Your task to perform on an android device: Add macbook pro 15 inch to the cart on costco Image 0: 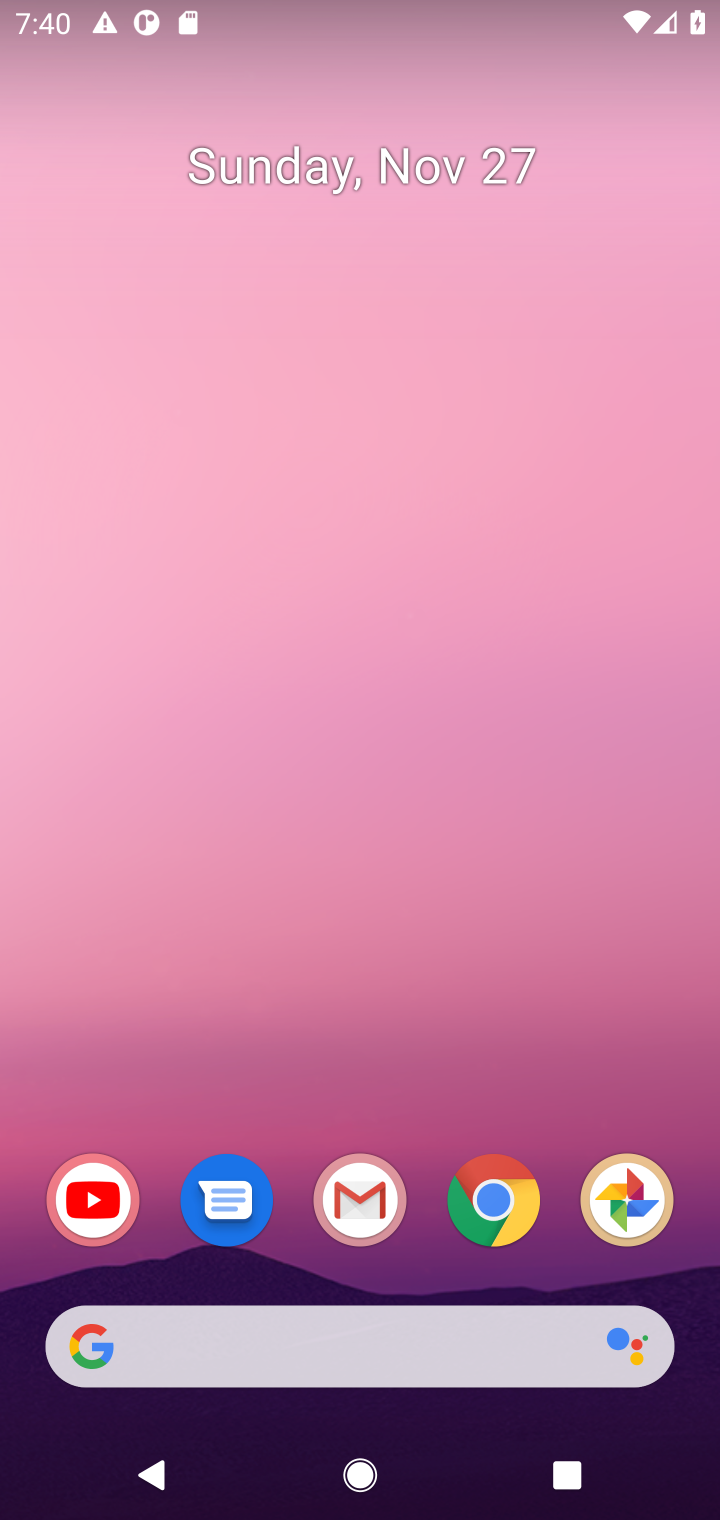
Step 0: click (495, 1218)
Your task to perform on an android device: Add macbook pro 15 inch to the cart on costco Image 1: 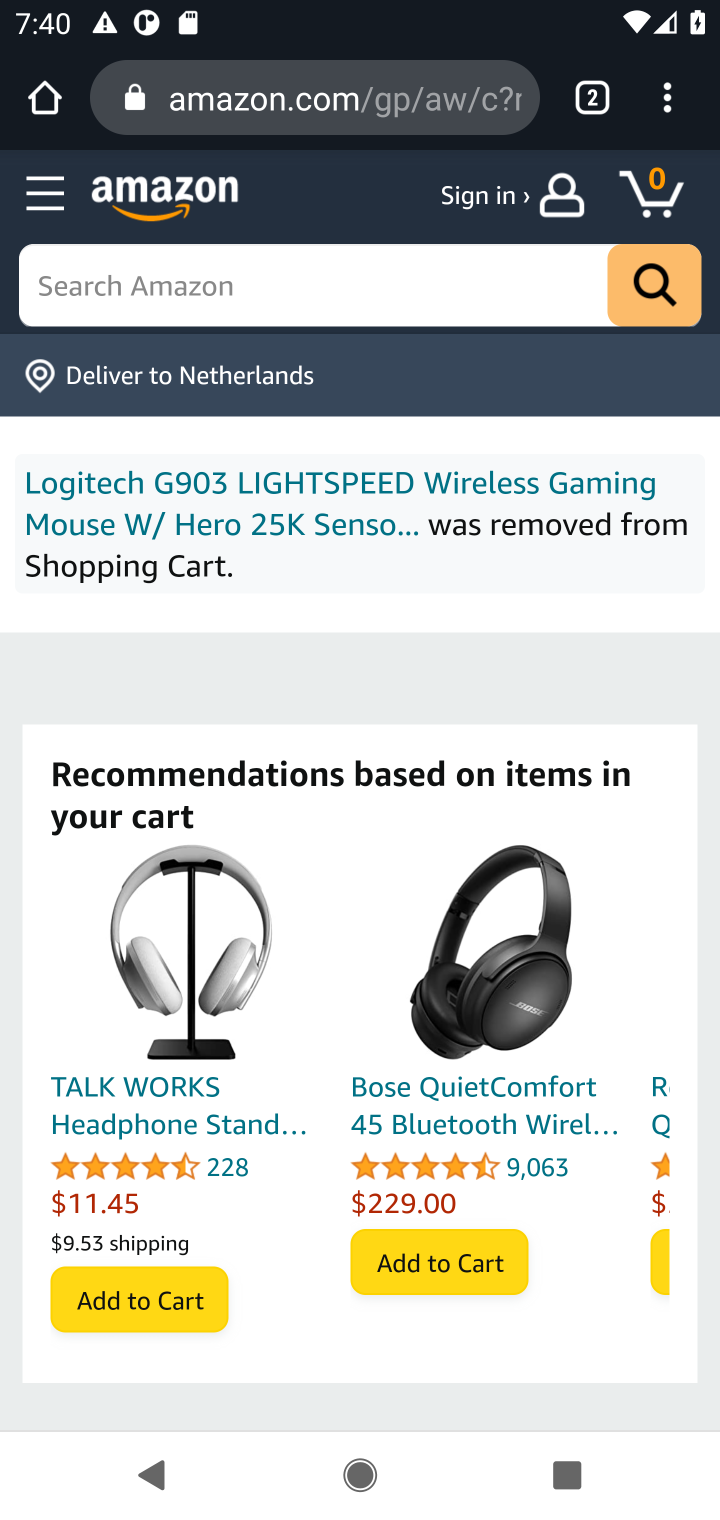
Step 1: click (329, 111)
Your task to perform on an android device: Add macbook pro 15 inch to the cart on costco Image 2: 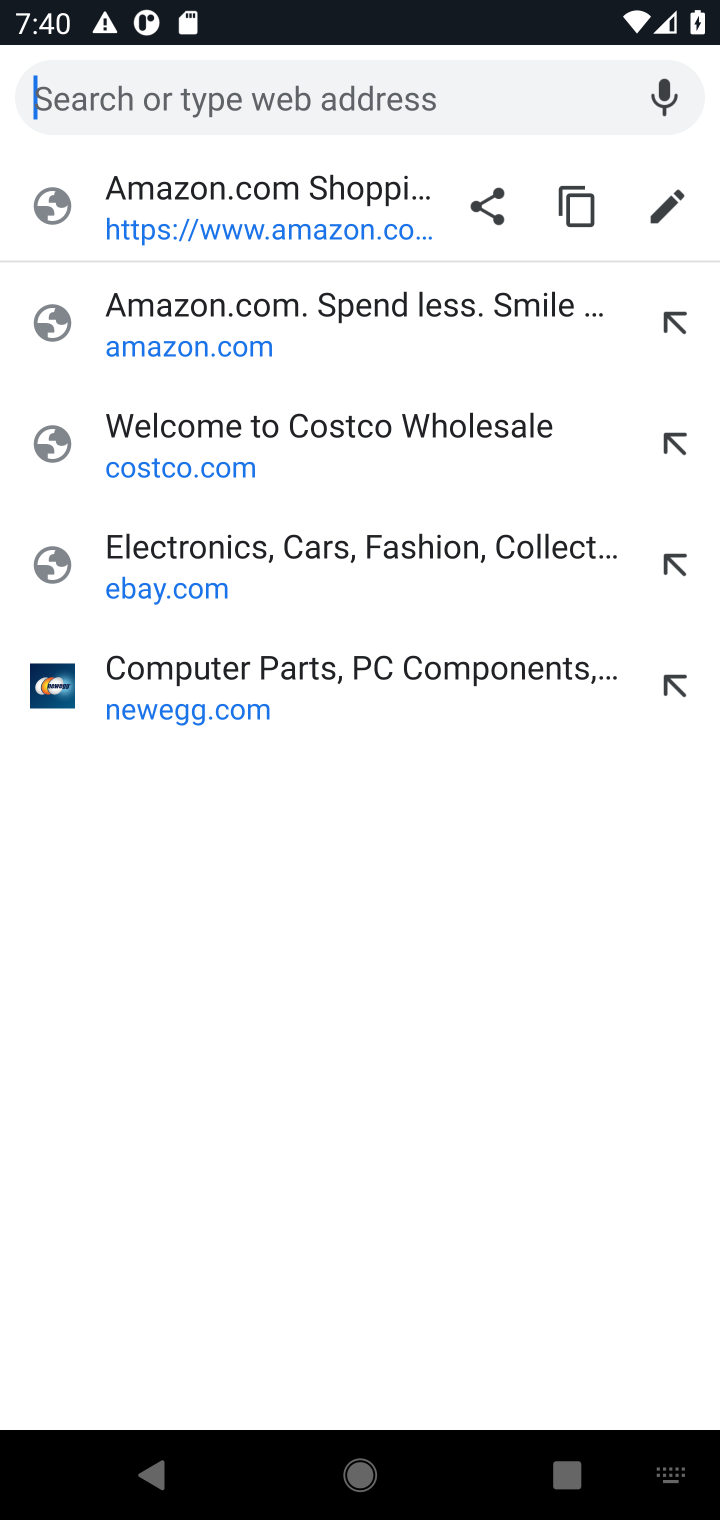
Step 2: click (154, 447)
Your task to perform on an android device: Add macbook pro 15 inch to the cart on costco Image 3: 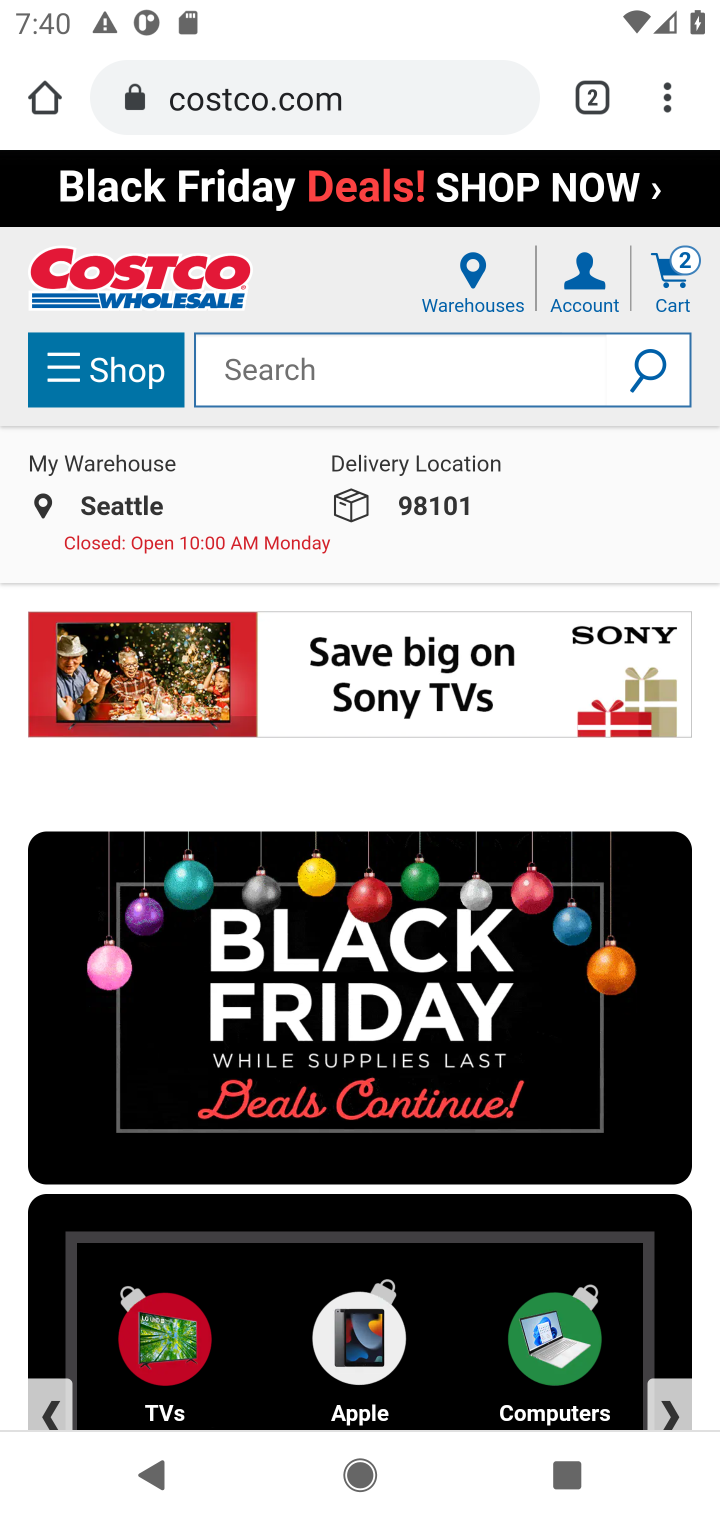
Step 3: click (304, 377)
Your task to perform on an android device: Add macbook pro 15 inch to the cart on costco Image 4: 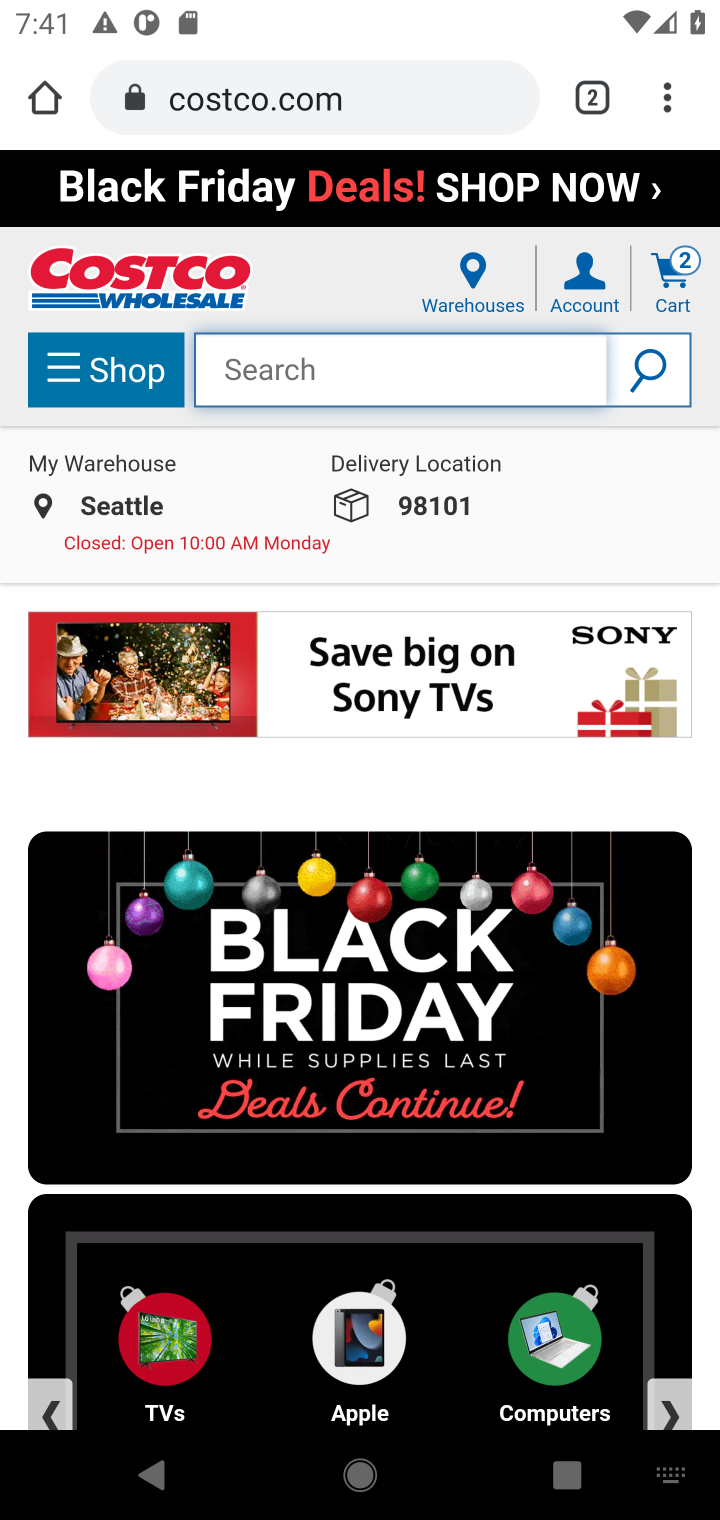
Step 4: type "macbook pro 15 inch"
Your task to perform on an android device: Add macbook pro 15 inch to the cart on costco Image 5: 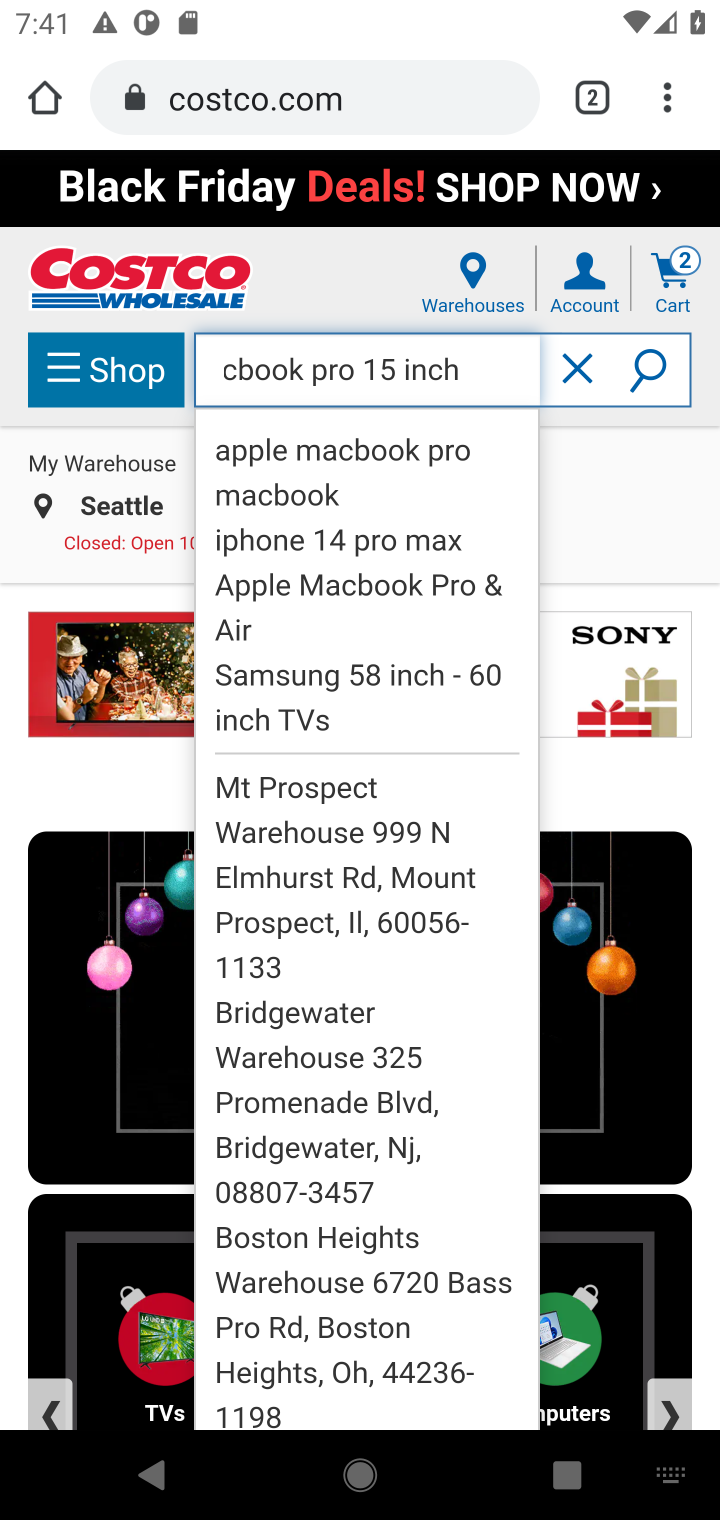
Step 5: click (649, 375)
Your task to perform on an android device: Add macbook pro 15 inch to the cart on costco Image 6: 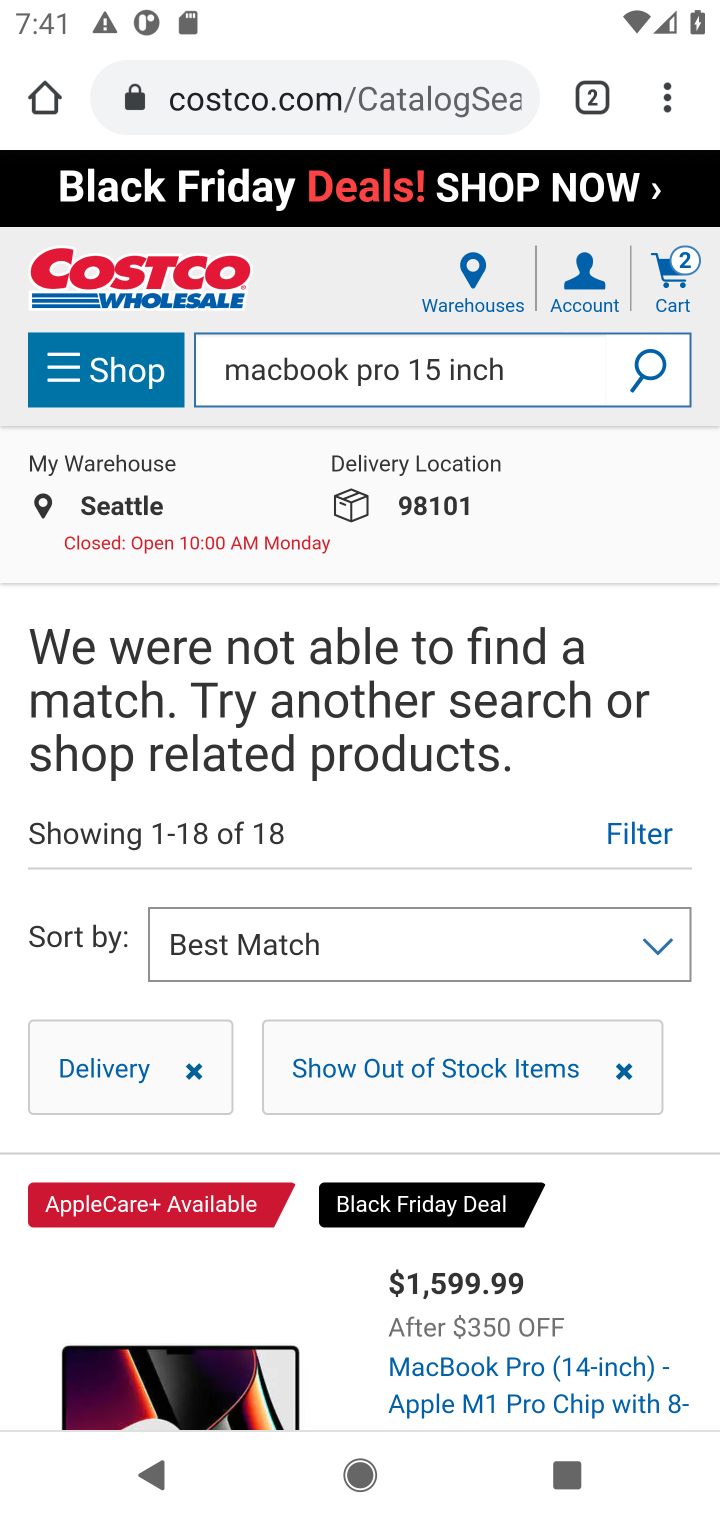
Step 6: task complete